Your task to perform on an android device: Do I have any events today? Image 0: 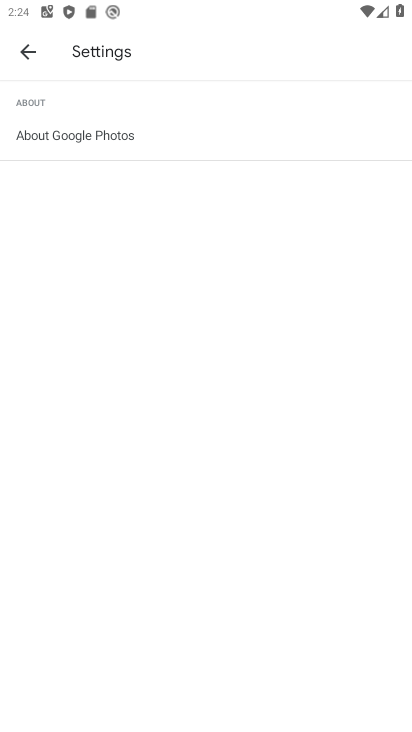
Step 0: press home button
Your task to perform on an android device: Do I have any events today? Image 1: 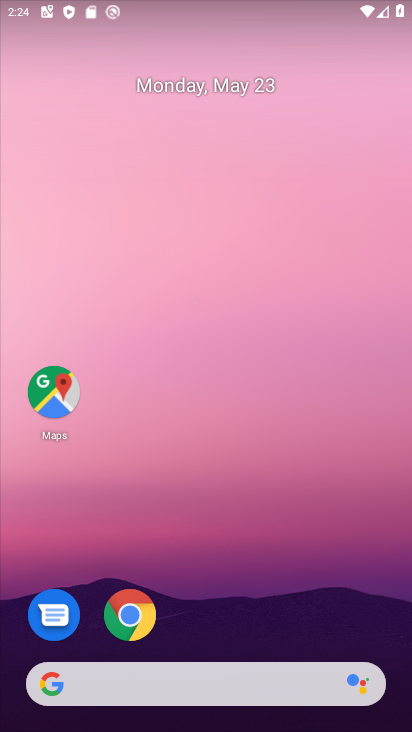
Step 1: drag from (257, 655) to (316, 23)
Your task to perform on an android device: Do I have any events today? Image 2: 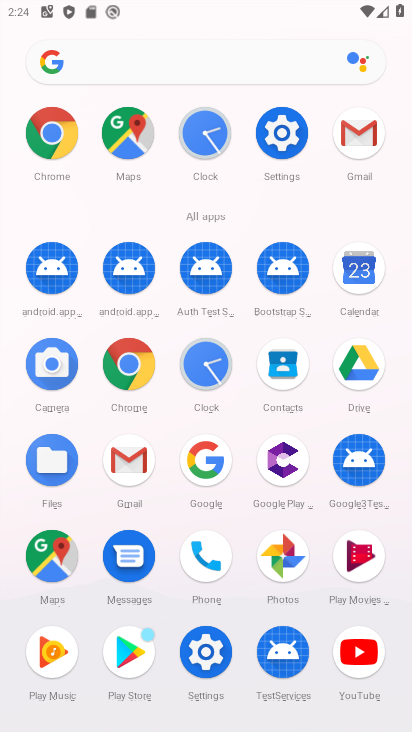
Step 2: click (360, 272)
Your task to perform on an android device: Do I have any events today? Image 3: 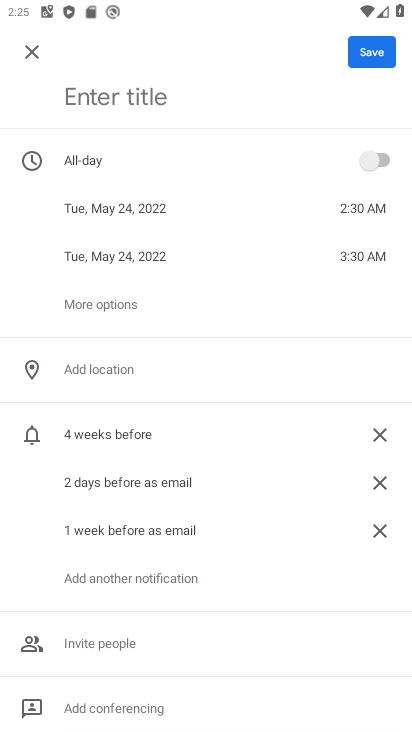
Step 3: click (26, 54)
Your task to perform on an android device: Do I have any events today? Image 4: 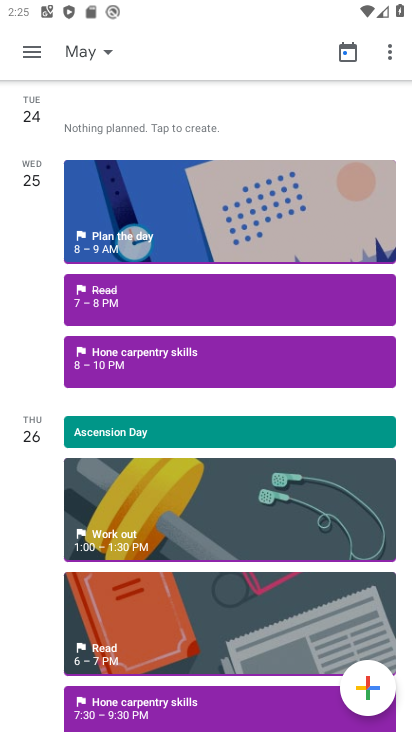
Step 4: click (109, 49)
Your task to perform on an android device: Do I have any events today? Image 5: 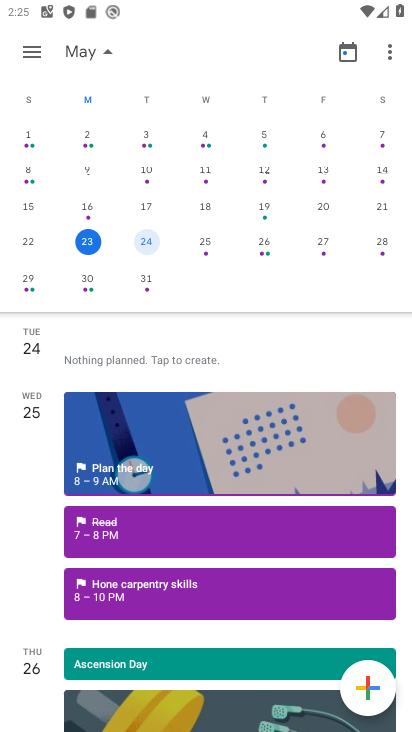
Step 5: click (99, 246)
Your task to perform on an android device: Do I have any events today? Image 6: 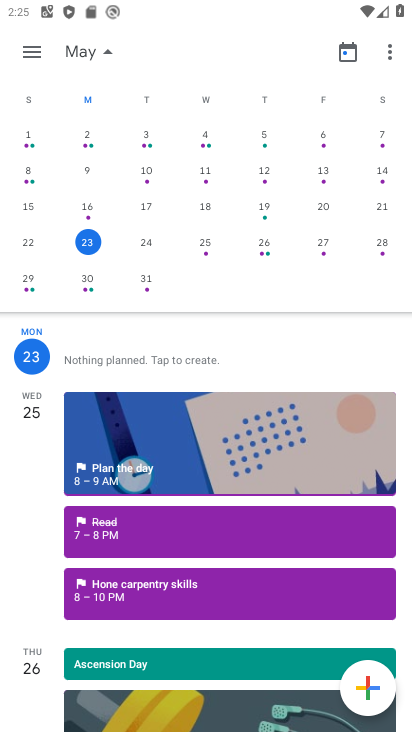
Step 6: click (115, 359)
Your task to perform on an android device: Do I have any events today? Image 7: 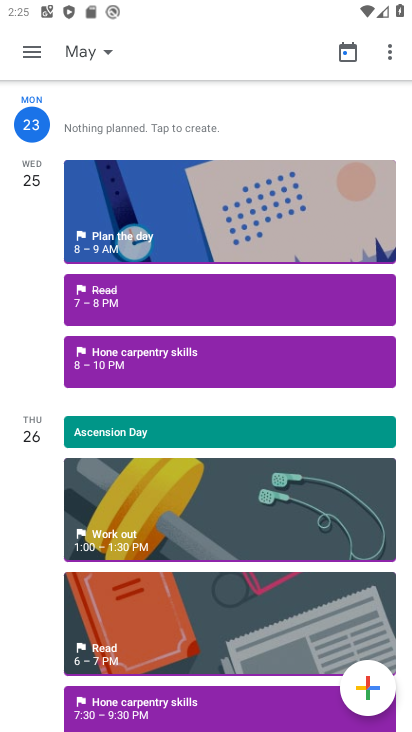
Step 7: click (140, 125)
Your task to perform on an android device: Do I have any events today? Image 8: 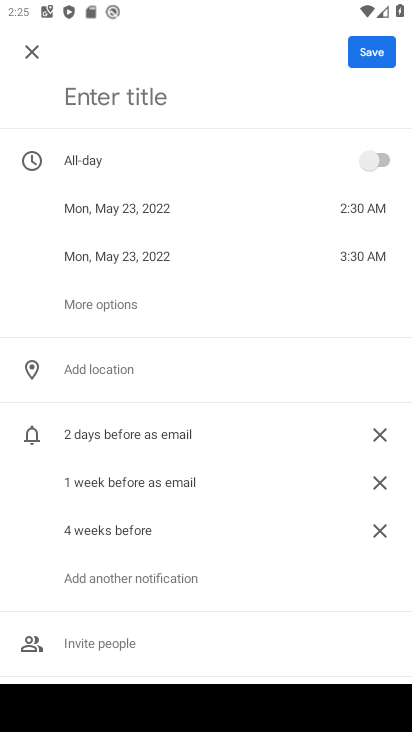
Step 8: task complete